Your task to perform on an android device: turn on priority inbox in the gmail app Image 0: 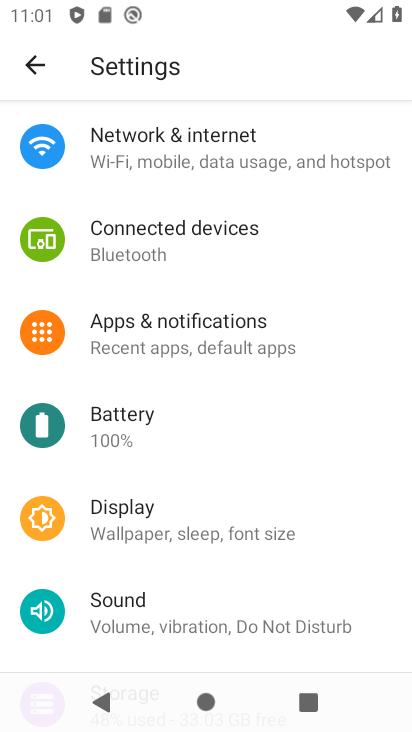
Step 0: press home button
Your task to perform on an android device: turn on priority inbox in the gmail app Image 1: 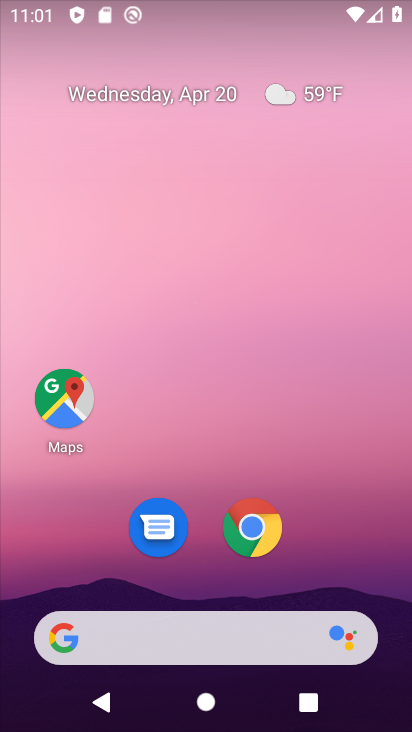
Step 1: drag from (362, 434) to (371, 70)
Your task to perform on an android device: turn on priority inbox in the gmail app Image 2: 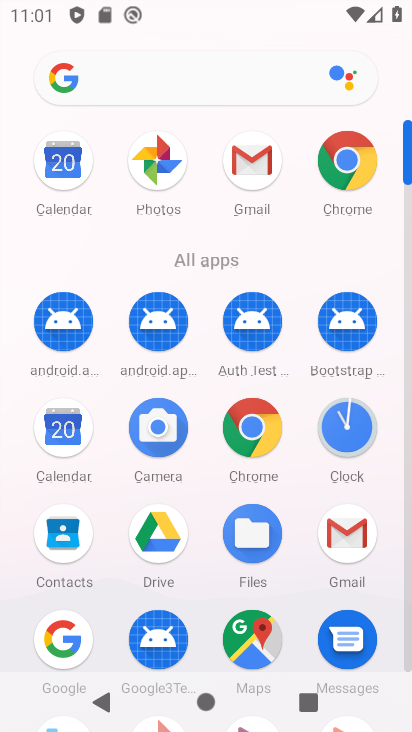
Step 2: click (233, 159)
Your task to perform on an android device: turn on priority inbox in the gmail app Image 3: 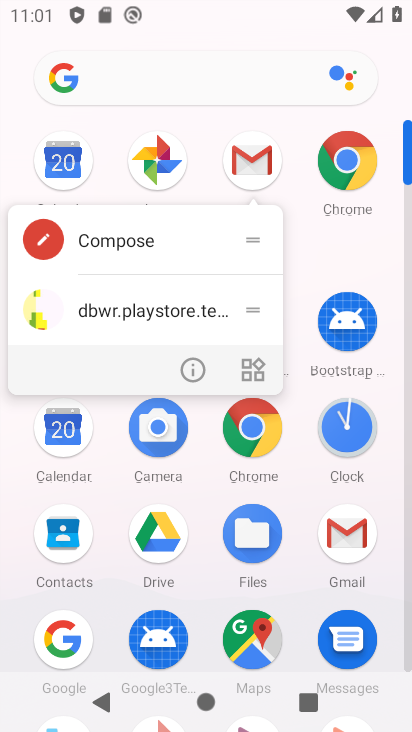
Step 3: click (259, 177)
Your task to perform on an android device: turn on priority inbox in the gmail app Image 4: 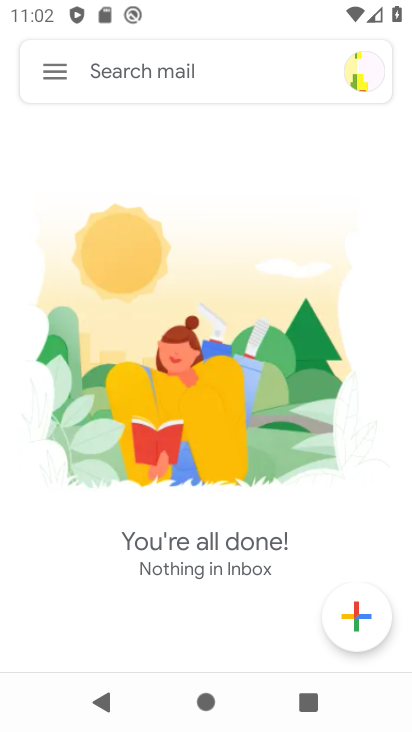
Step 4: click (45, 69)
Your task to perform on an android device: turn on priority inbox in the gmail app Image 5: 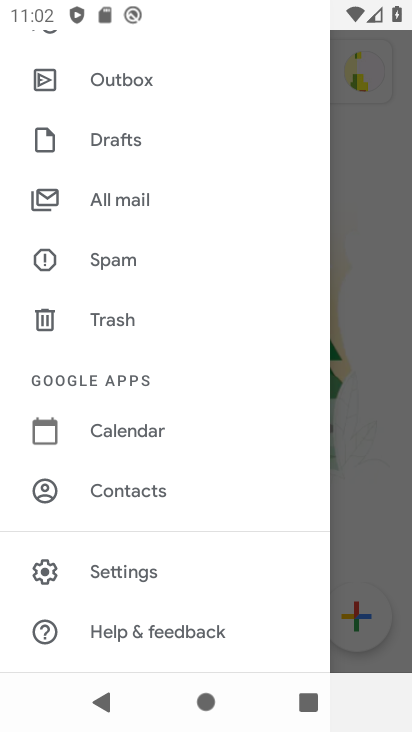
Step 5: click (138, 566)
Your task to perform on an android device: turn on priority inbox in the gmail app Image 6: 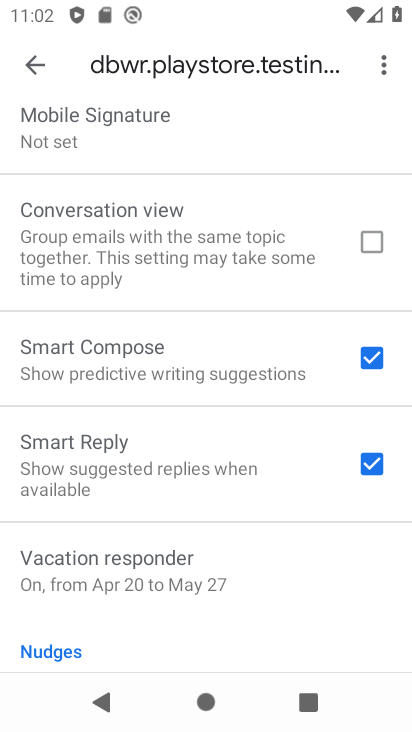
Step 6: drag from (226, 194) to (253, 547)
Your task to perform on an android device: turn on priority inbox in the gmail app Image 7: 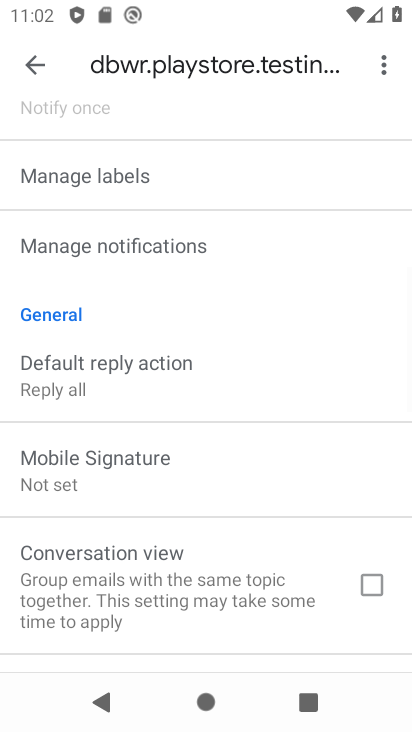
Step 7: drag from (231, 260) to (235, 525)
Your task to perform on an android device: turn on priority inbox in the gmail app Image 8: 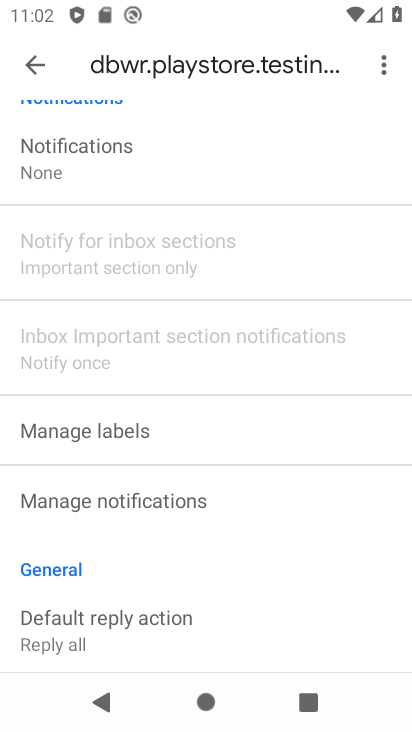
Step 8: drag from (240, 263) to (233, 575)
Your task to perform on an android device: turn on priority inbox in the gmail app Image 9: 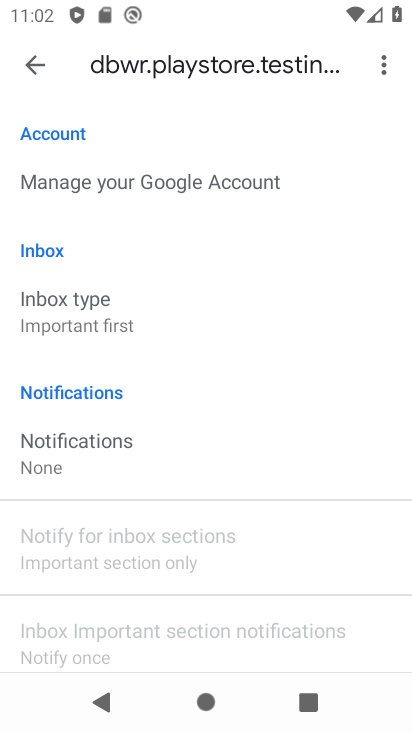
Step 9: click (119, 324)
Your task to perform on an android device: turn on priority inbox in the gmail app Image 10: 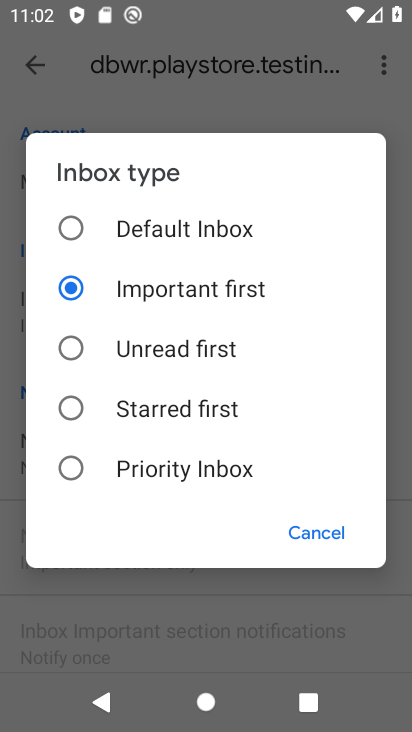
Step 10: click (147, 464)
Your task to perform on an android device: turn on priority inbox in the gmail app Image 11: 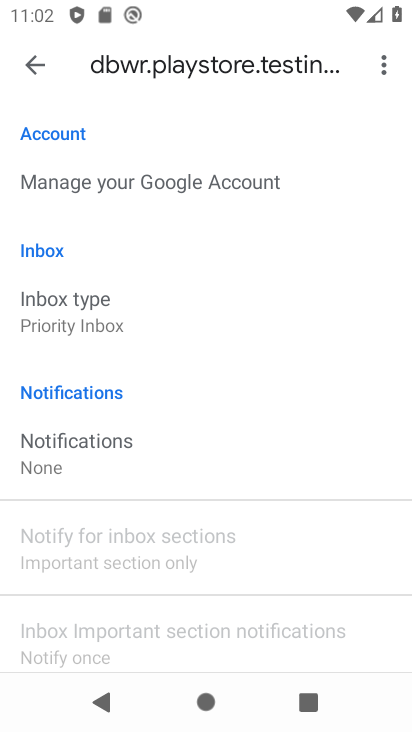
Step 11: task complete